Your task to perform on an android device: show emergency info Image 0: 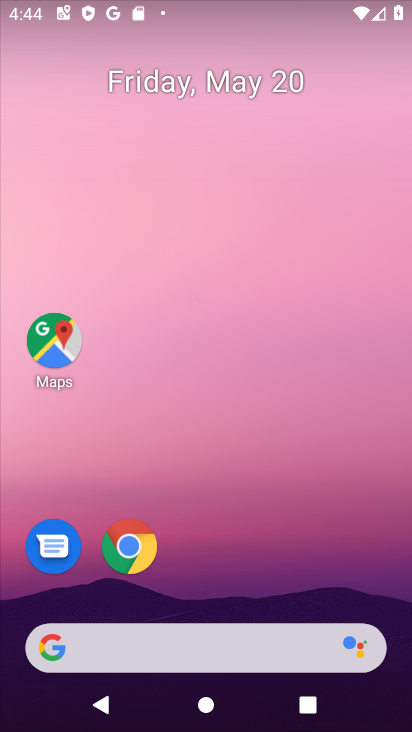
Step 0: drag from (214, 576) to (183, 101)
Your task to perform on an android device: show emergency info Image 1: 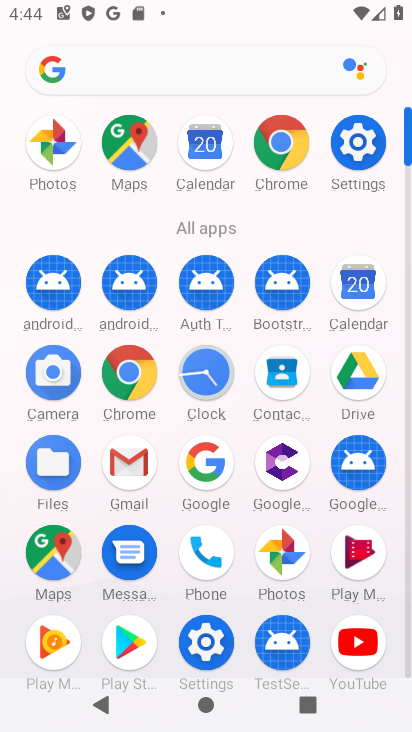
Step 1: click (359, 142)
Your task to perform on an android device: show emergency info Image 2: 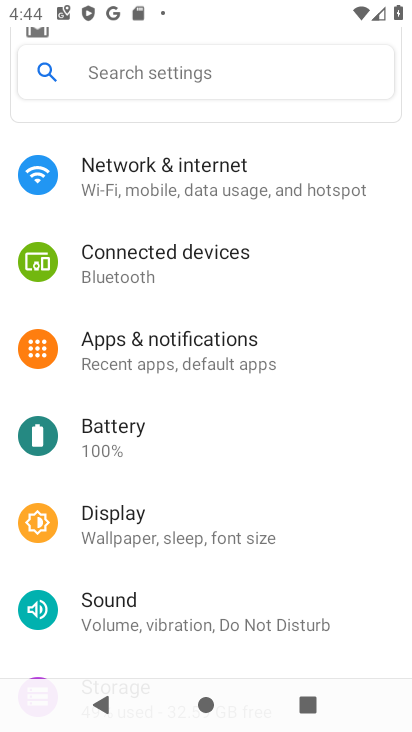
Step 2: drag from (163, 489) to (207, 336)
Your task to perform on an android device: show emergency info Image 3: 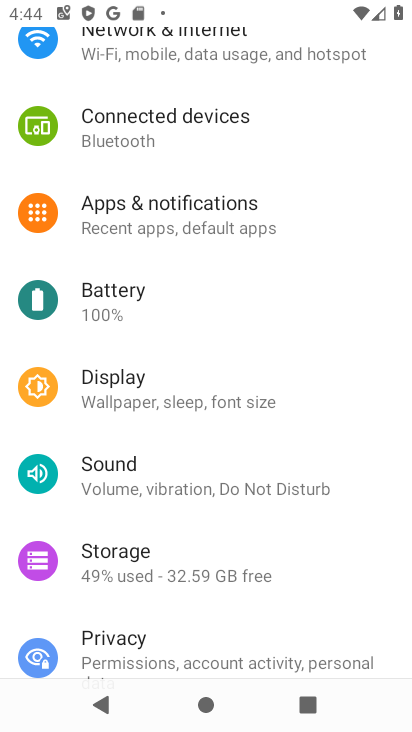
Step 3: drag from (186, 454) to (239, 309)
Your task to perform on an android device: show emergency info Image 4: 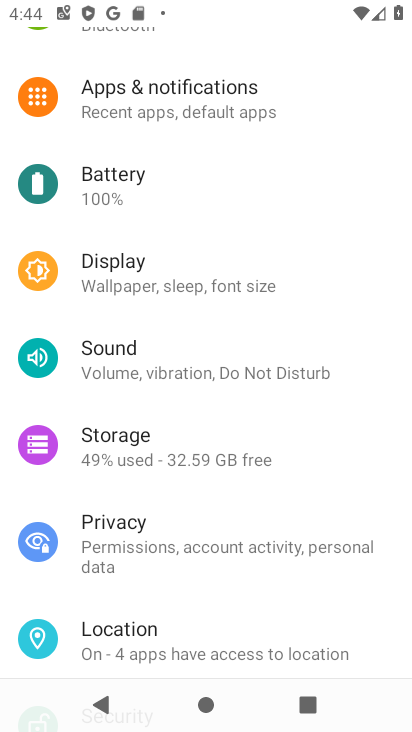
Step 4: drag from (162, 496) to (239, 349)
Your task to perform on an android device: show emergency info Image 5: 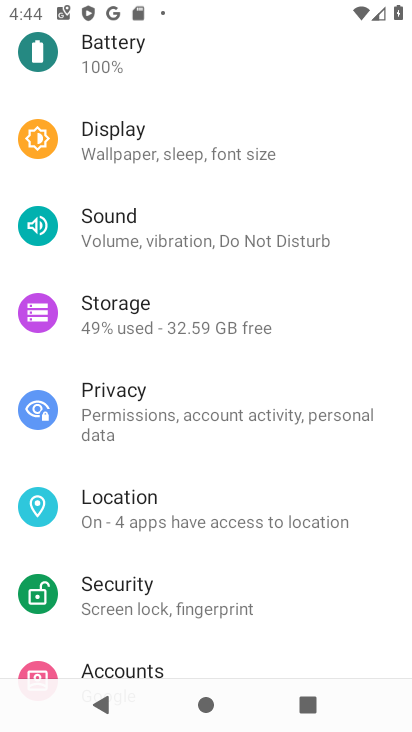
Step 5: drag from (186, 482) to (269, 332)
Your task to perform on an android device: show emergency info Image 6: 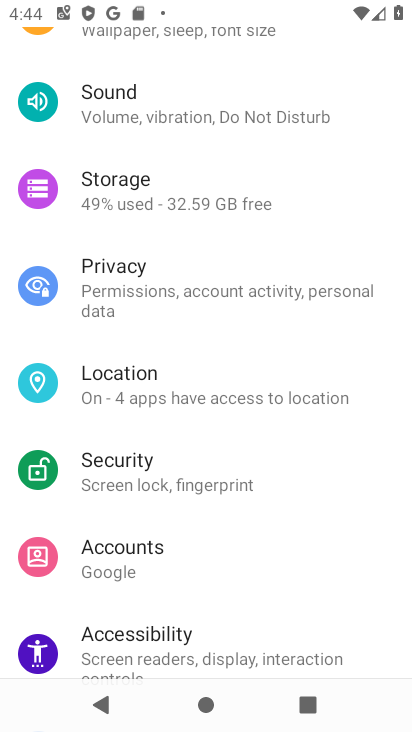
Step 6: drag from (178, 559) to (252, 367)
Your task to perform on an android device: show emergency info Image 7: 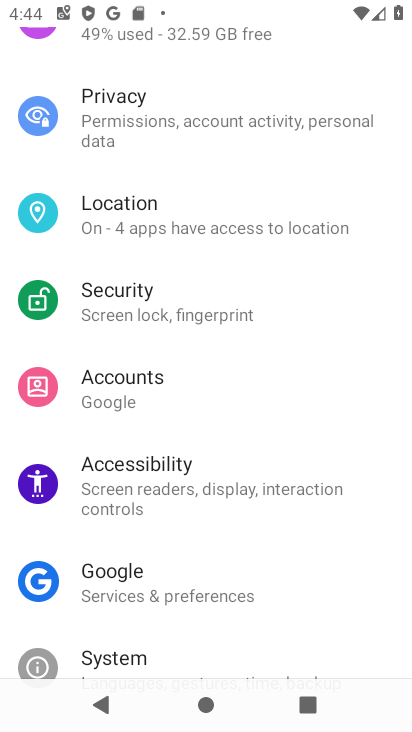
Step 7: drag from (181, 538) to (255, 409)
Your task to perform on an android device: show emergency info Image 8: 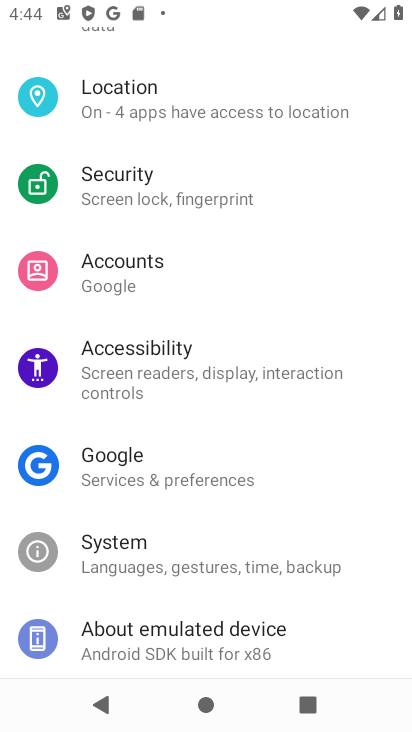
Step 8: drag from (177, 537) to (234, 418)
Your task to perform on an android device: show emergency info Image 9: 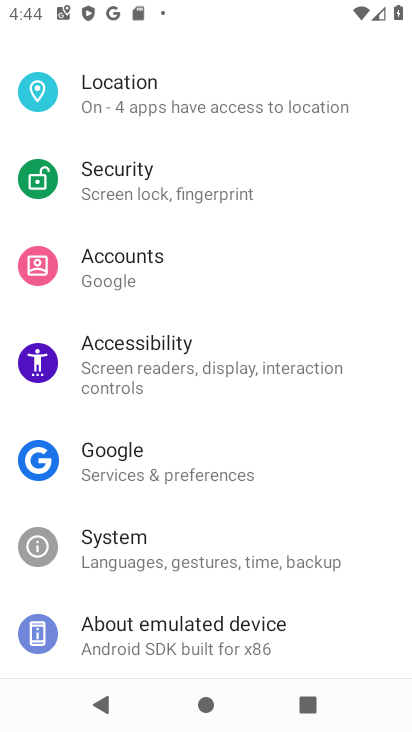
Step 9: click (149, 622)
Your task to perform on an android device: show emergency info Image 10: 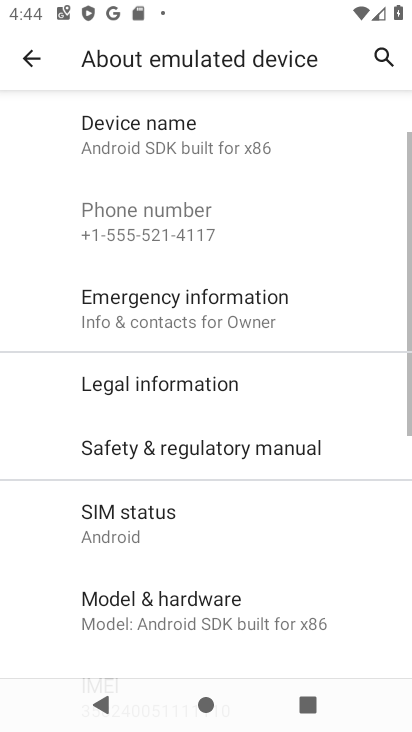
Step 10: click (204, 303)
Your task to perform on an android device: show emergency info Image 11: 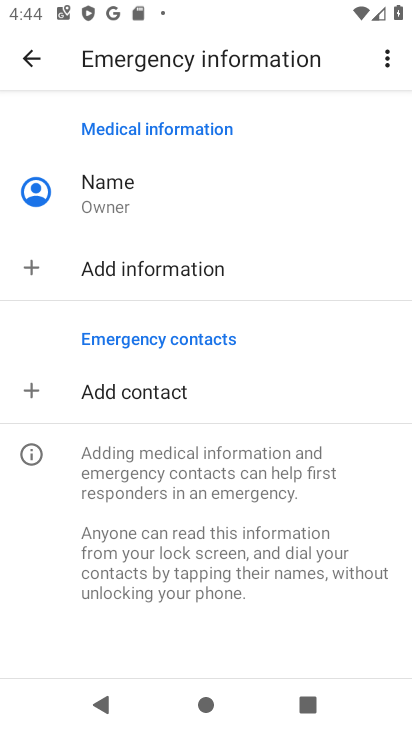
Step 11: task complete